Your task to perform on an android device: Open Yahoo.com Image 0: 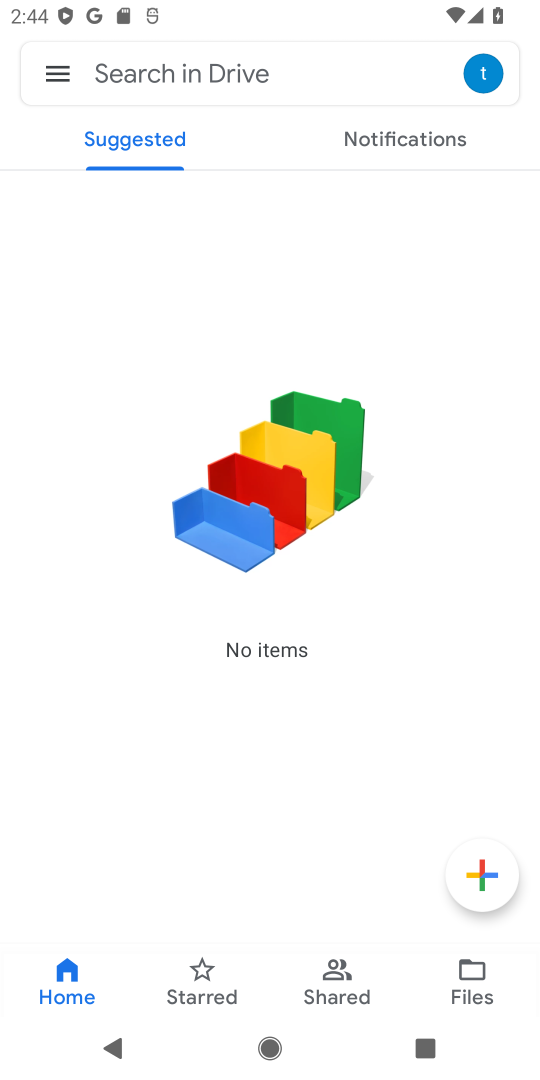
Step 0: press back button
Your task to perform on an android device: Open Yahoo.com Image 1: 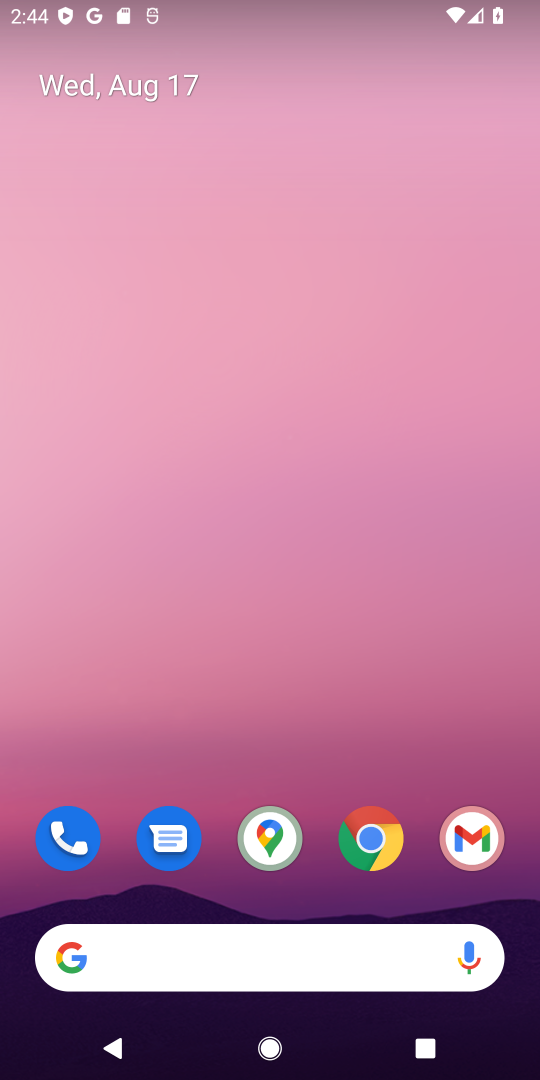
Step 1: click (365, 850)
Your task to perform on an android device: Open Yahoo.com Image 2: 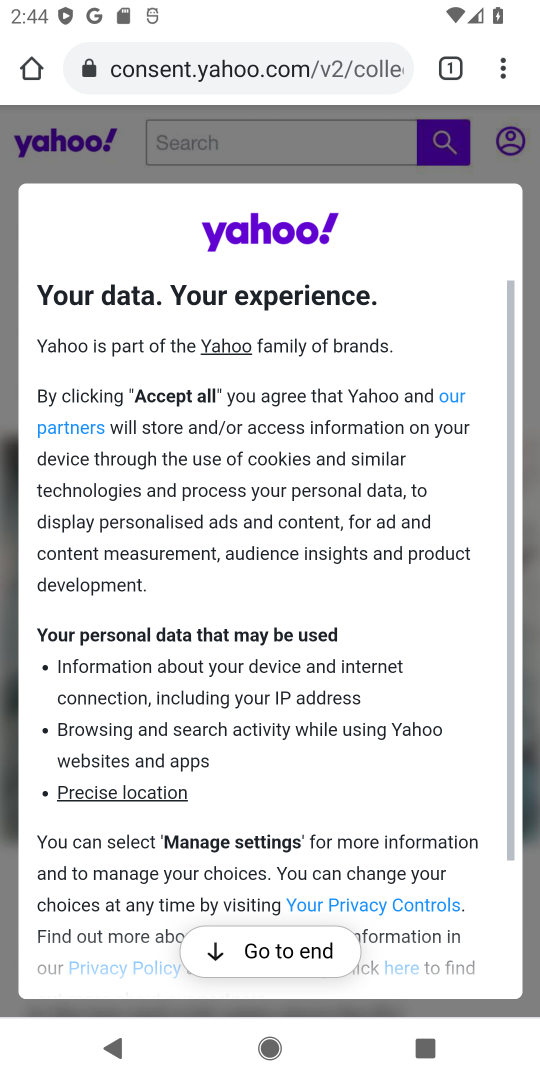
Step 2: task complete